Your task to perform on an android device: toggle sleep mode Image 0: 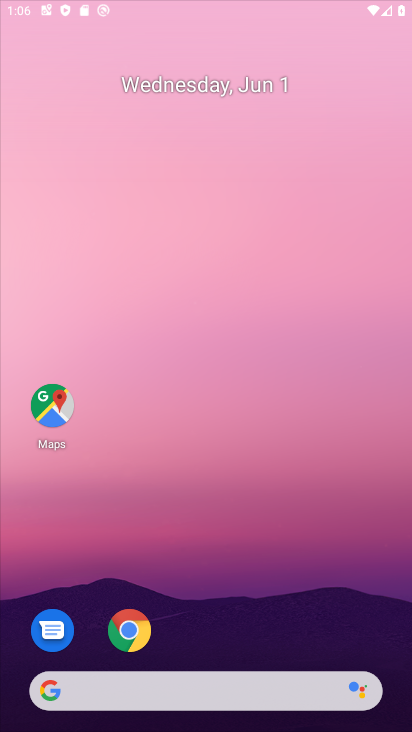
Step 0: press home button
Your task to perform on an android device: toggle sleep mode Image 1: 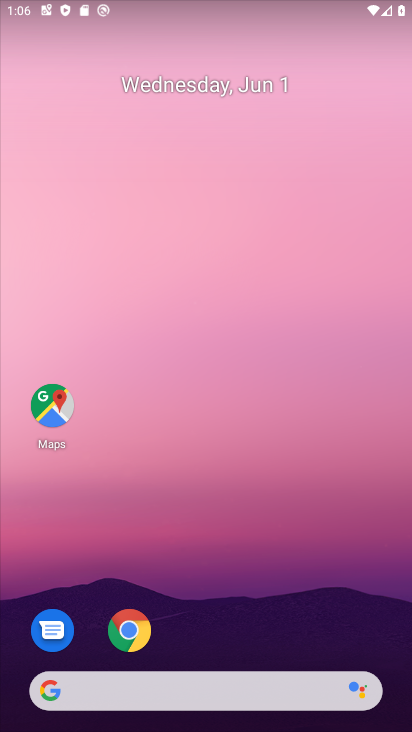
Step 1: drag from (239, 648) to (280, 215)
Your task to perform on an android device: toggle sleep mode Image 2: 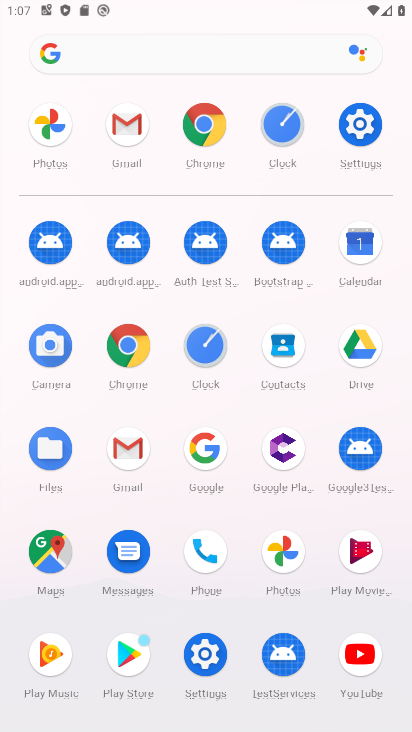
Step 2: click (360, 130)
Your task to perform on an android device: toggle sleep mode Image 3: 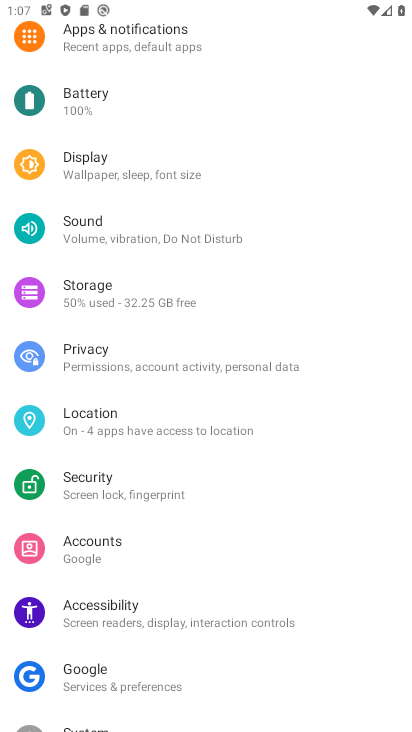
Step 3: click (93, 174)
Your task to perform on an android device: toggle sleep mode Image 4: 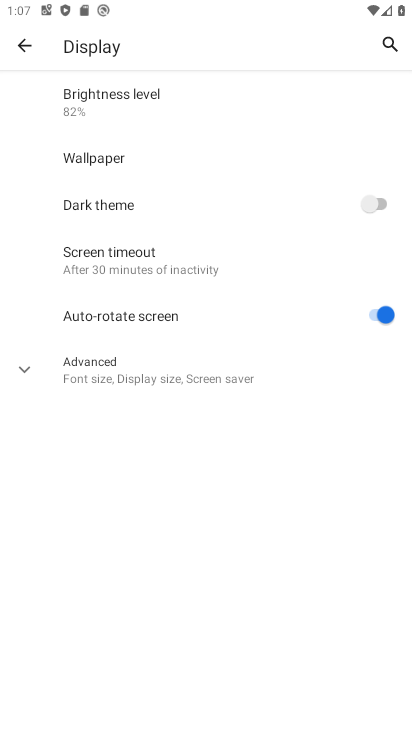
Step 4: task complete